Your task to perform on an android device: Search for Mexican restaurants on Maps Image 0: 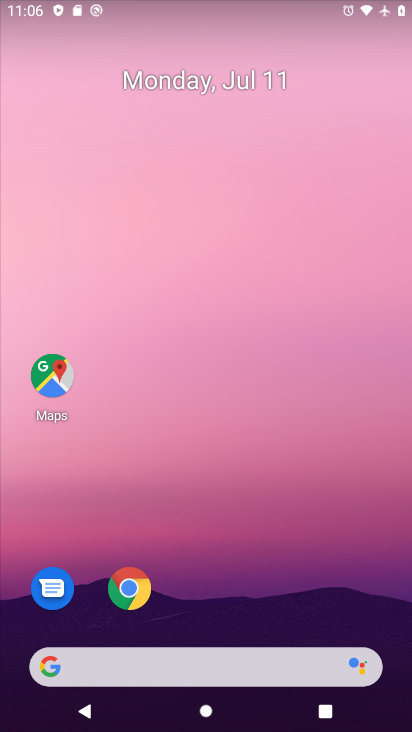
Step 0: click (50, 374)
Your task to perform on an android device: Search for Mexican restaurants on Maps Image 1: 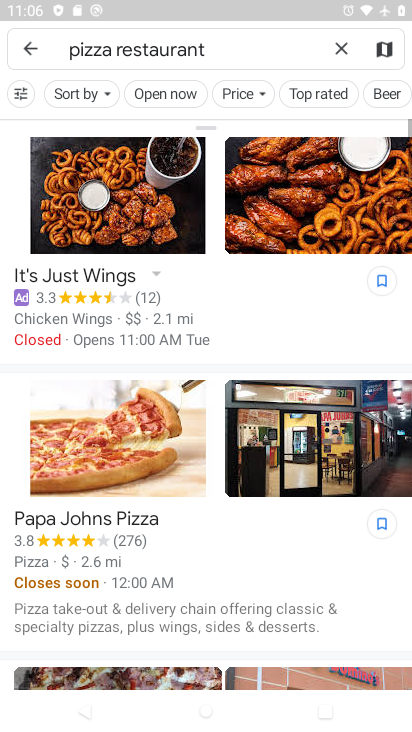
Step 1: click (345, 45)
Your task to perform on an android device: Search for Mexican restaurants on Maps Image 2: 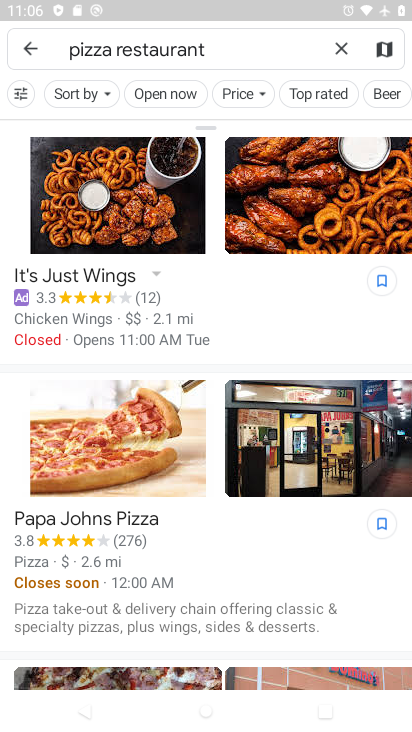
Step 2: click (335, 44)
Your task to perform on an android device: Search for Mexican restaurants on Maps Image 3: 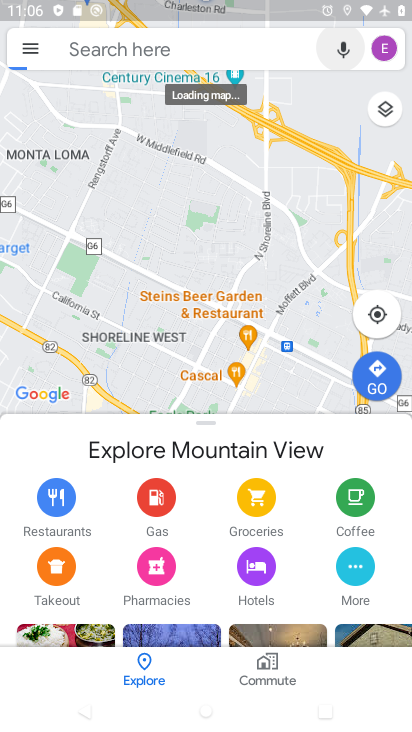
Step 3: click (341, 48)
Your task to perform on an android device: Search for Mexican restaurants on Maps Image 4: 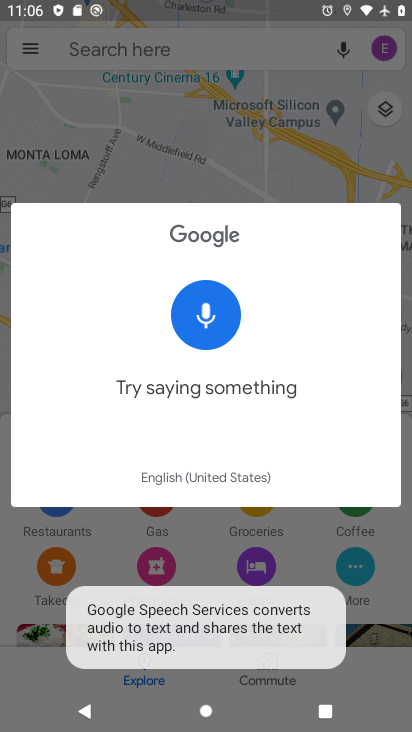
Step 4: click (232, 52)
Your task to perform on an android device: Search for Mexican restaurants on Maps Image 5: 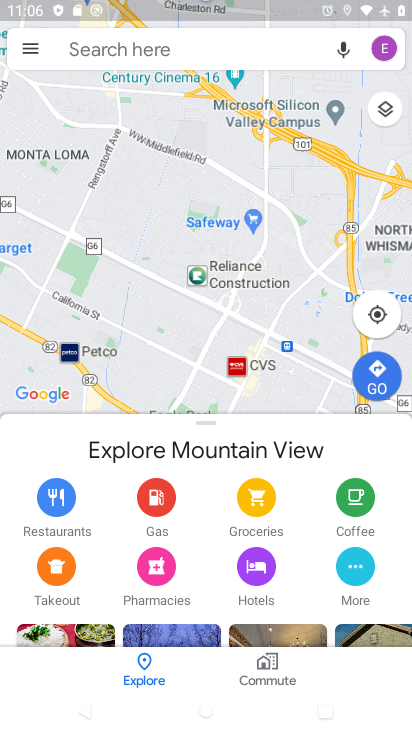
Step 5: click (226, 53)
Your task to perform on an android device: Search for Mexican restaurants on Maps Image 6: 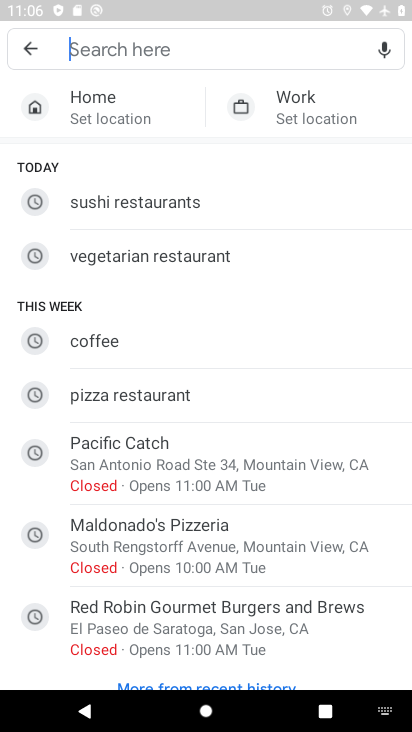
Step 6: type "Mexican restaurants"
Your task to perform on an android device: Search for Mexican restaurants on Maps Image 7: 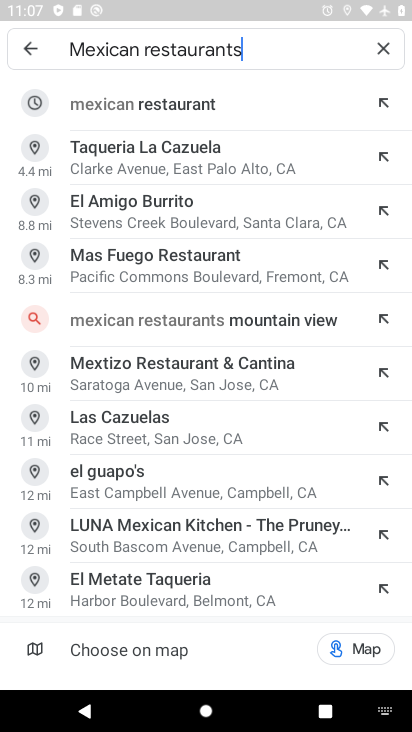
Step 7: click (175, 104)
Your task to perform on an android device: Search for Mexican restaurants on Maps Image 8: 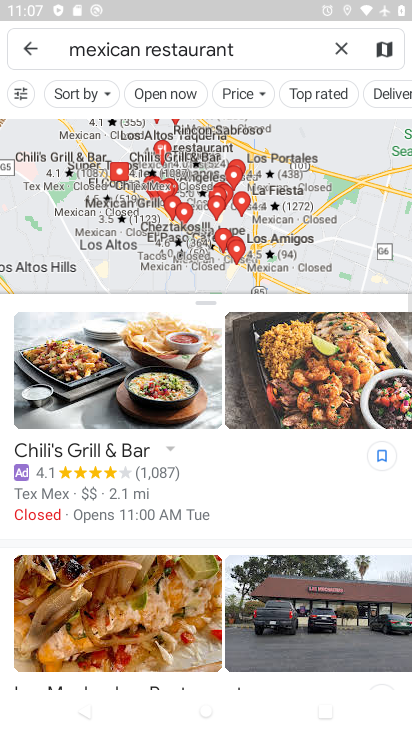
Step 8: task complete